Your task to perform on an android device: Search for usb-c to usb-b on ebay.com, select the first entry, add it to the cart, then select checkout. Image 0: 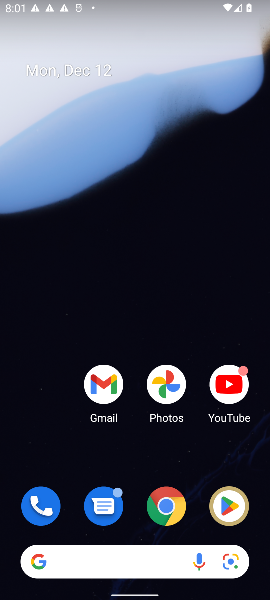
Step 0: click (122, 569)
Your task to perform on an android device: Search for usb-c to usb-b on ebay.com, select the first entry, add it to the cart, then select checkout. Image 1: 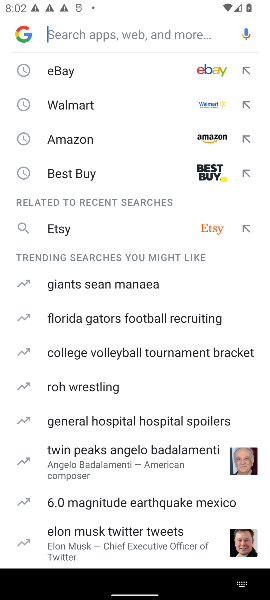
Step 1: click (76, 74)
Your task to perform on an android device: Search for usb-c to usb-b on ebay.com, select the first entry, add it to the cart, then select checkout. Image 2: 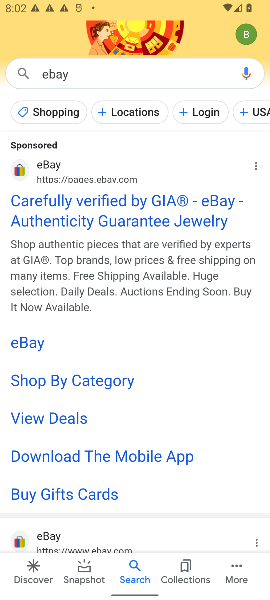
Step 2: click (63, 206)
Your task to perform on an android device: Search for usb-c to usb-b on ebay.com, select the first entry, add it to the cart, then select checkout. Image 3: 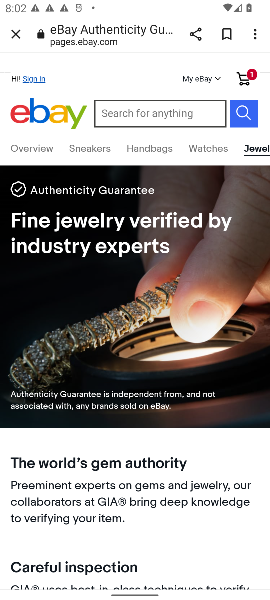
Step 3: click (34, 149)
Your task to perform on an android device: Search for usb-c to usb-b on ebay.com, select the first entry, add it to the cart, then select checkout. Image 4: 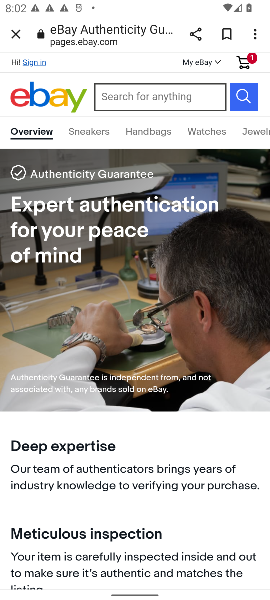
Step 4: click (134, 100)
Your task to perform on an android device: Search for usb-c to usb-b on ebay.com, select the first entry, add it to the cart, then select checkout. Image 5: 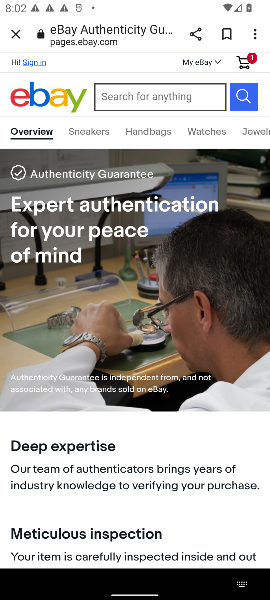
Step 5: type "usb-c to usb-b"
Your task to perform on an android device: Search for usb-c to usb-b on ebay.com, select the first entry, add it to the cart, then select checkout. Image 6: 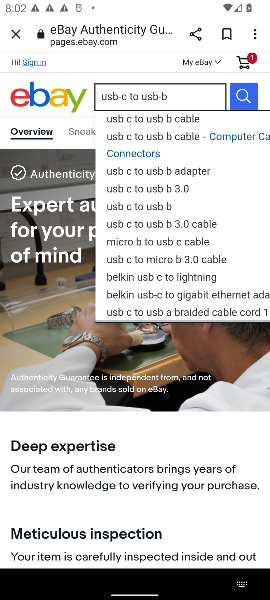
Step 6: click (196, 115)
Your task to perform on an android device: Search for usb-c to usb-b on ebay.com, select the first entry, add it to the cart, then select checkout. Image 7: 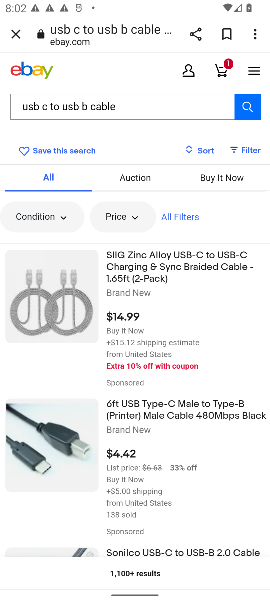
Step 7: click (146, 403)
Your task to perform on an android device: Search for usb-c to usb-b on ebay.com, select the first entry, add it to the cart, then select checkout. Image 8: 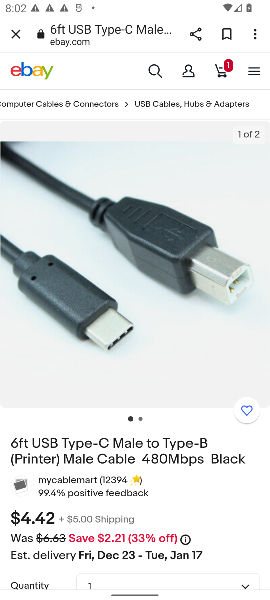
Step 8: drag from (168, 494) to (183, 262)
Your task to perform on an android device: Search for usb-c to usb-b on ebay.com, select the first entry, add it to the cart, then select checkout. Image 9: 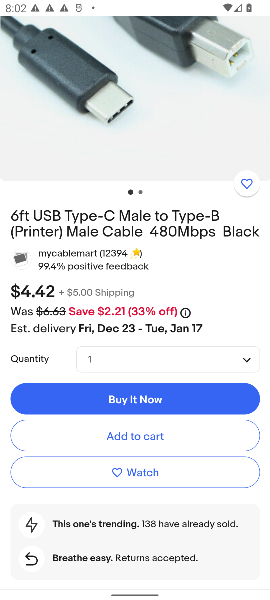
Step 9: click (149, 434)
Your task to perform on an android device: Search for usb-c to usb-b on ebay.com, select the first entry, add it to the cart, then select checkout. Image 10: 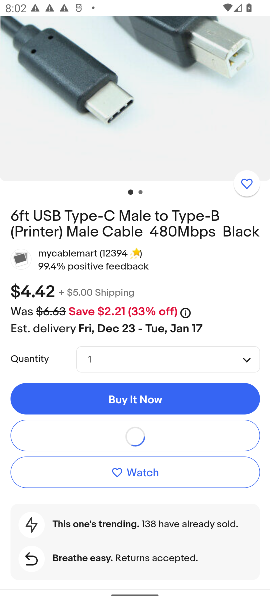
Step 10: task complete